Your task to perform on an android device: Open Chrome and go to settings Image 0: 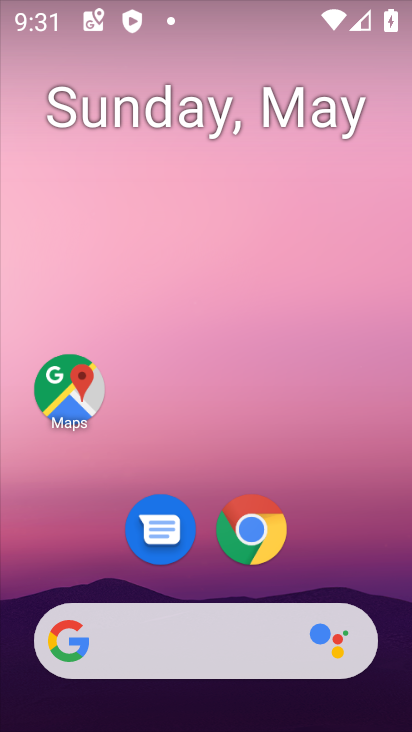
Step 0: click (269, 550)
Your task to perform on an android device: Open Chrome and go to settings Image 1: 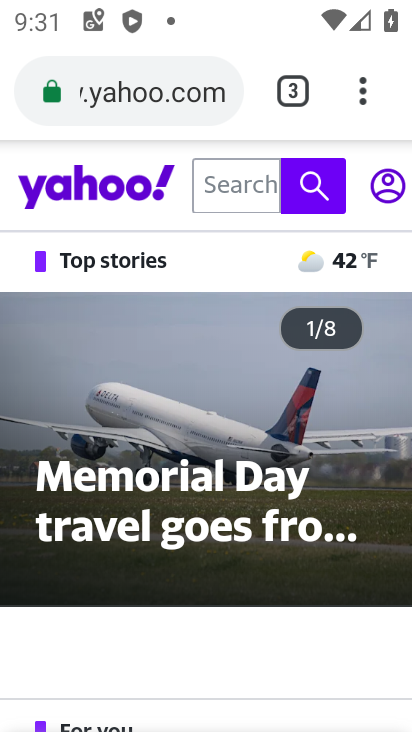
Step 1: click (354, 104)
Your task to perform on an android device: Open Chrome and go to settings Image 2: 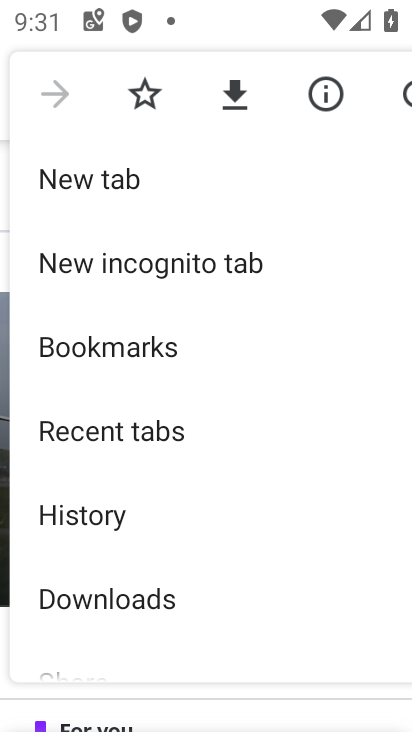
Step 2: task complete